Your task to perform on an android device: Empty the shopping cart on walmart.com. Add acer predator to the cart on walmart.com, then select checkout. Image 0: 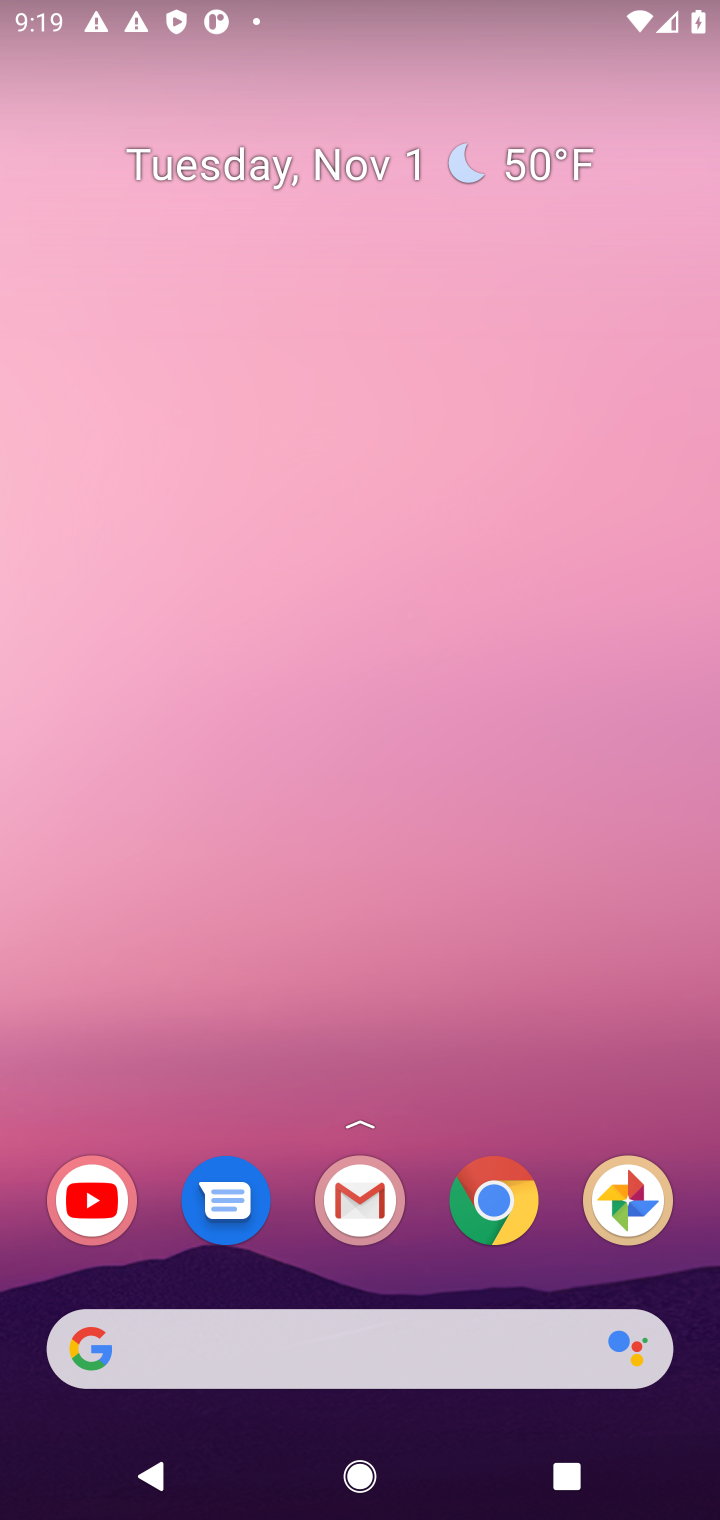
Step 0: click (285, 1363)
Your task to perform on an android device: Empty the shopping cart on walmart.com. Add acer predator to the cart on walmart.com, then select checkout. Image 1: 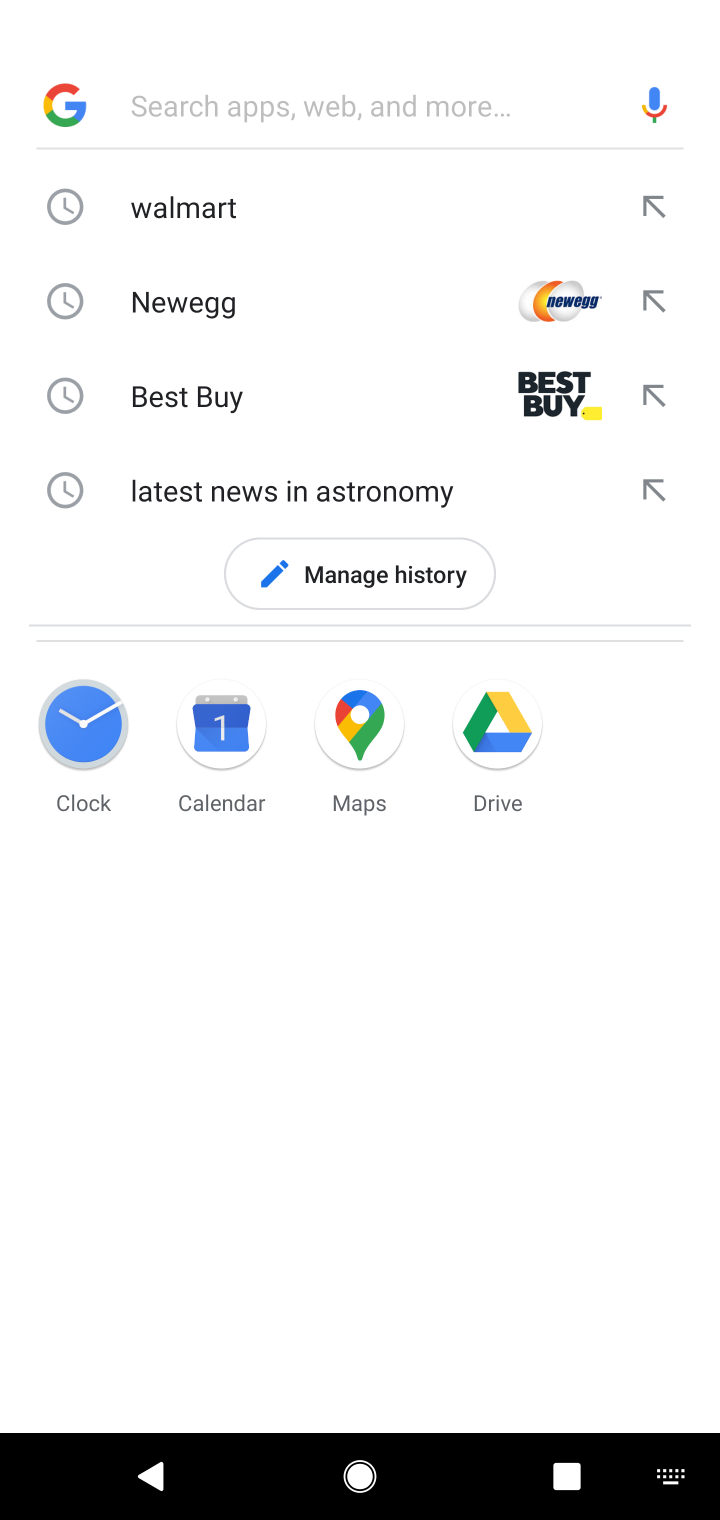
Step 1: type "walmart.com"
Your task to perform on an android device: Empty the shopping cart on walmart.com. Add acer predator to the cart on walmart.com, then select checkout. Image 2: 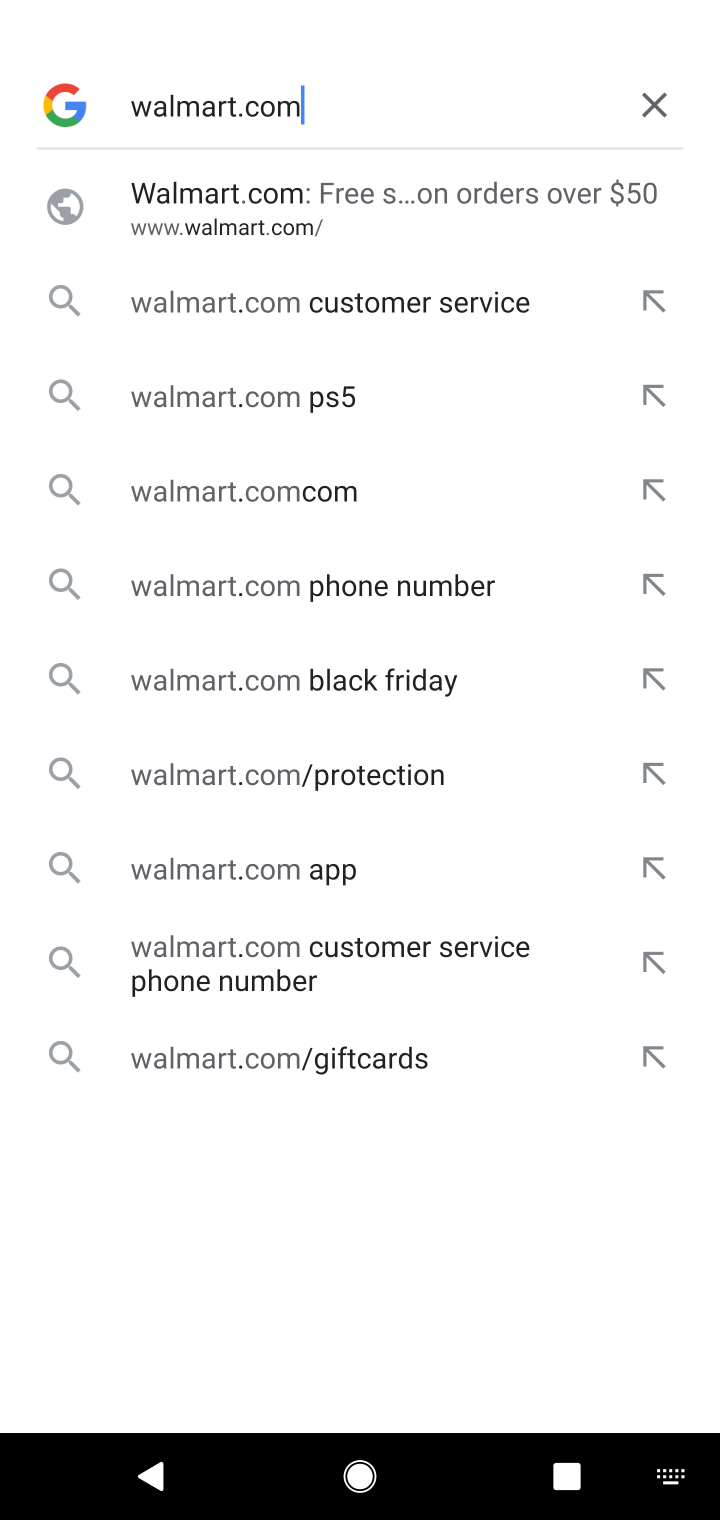
Step 2: type ""
Your task to perform on an android device: Empty the shopping cart on walmart.com. Add acer predator to the cart on walmart.com, then select checkout. Image 3: 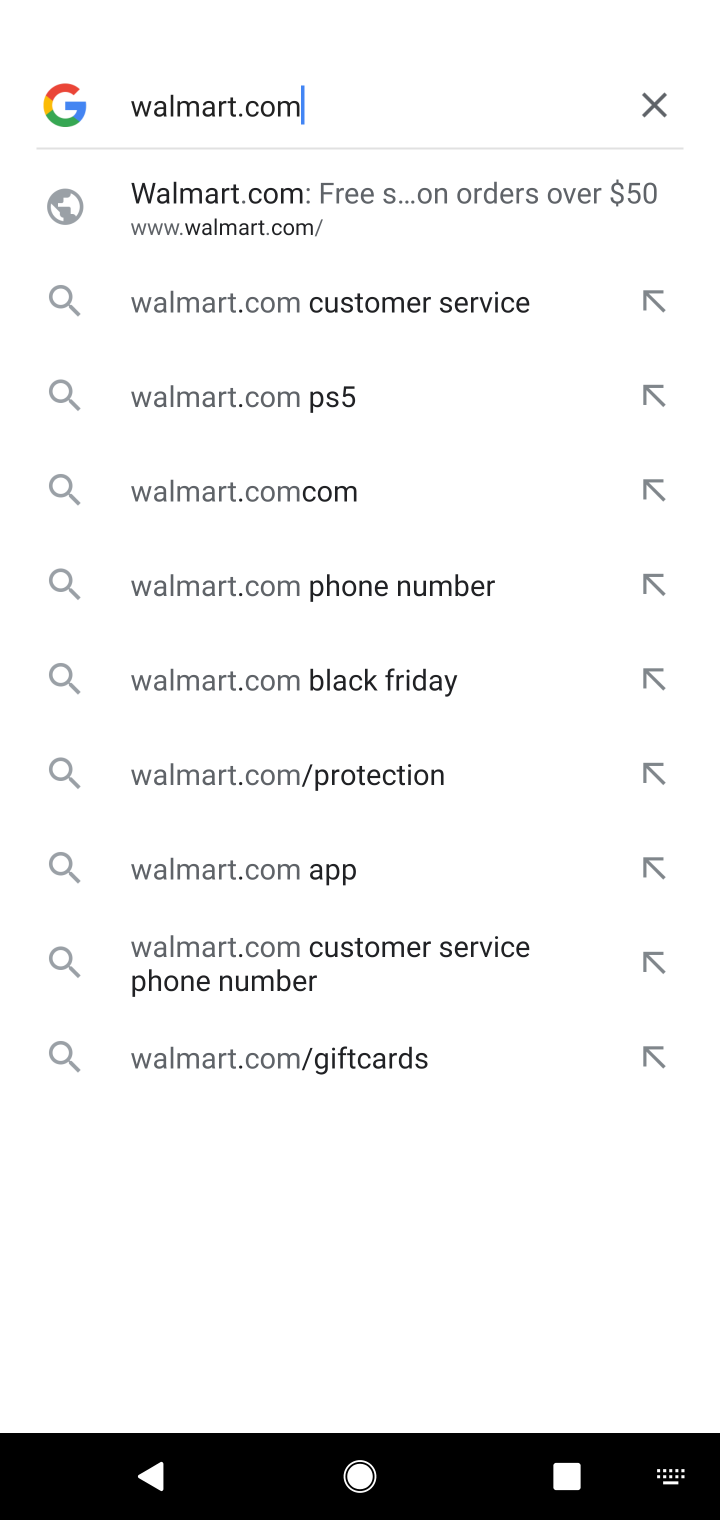
Step 3: click (152, 218)
Your task to perform on an android device: Empty the shopping cart on walmart.com. Add acer predator to the cart on walmart.com, then select checkout. Image 4: 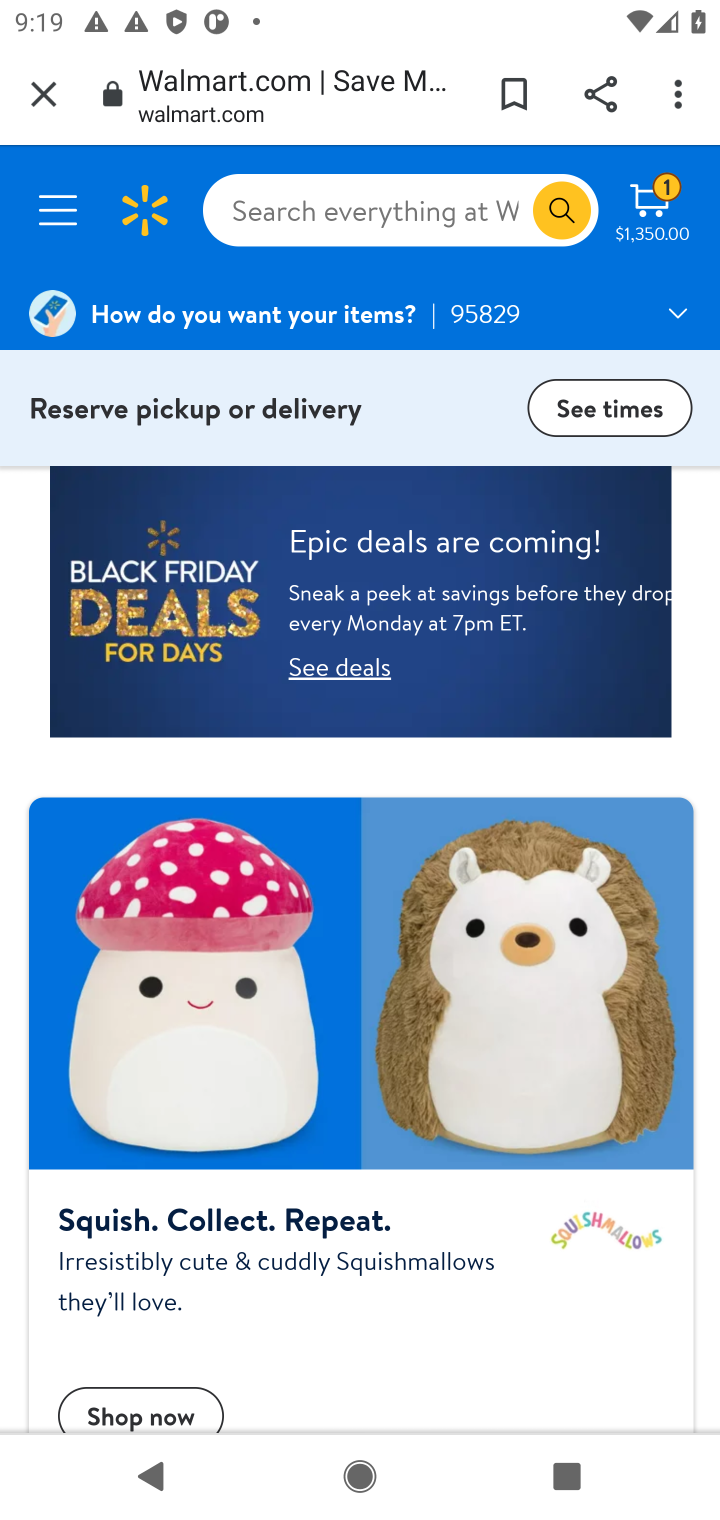
Step 4: click (274, 227)
Your task to perform on an android device: Empty the shopping cart on walmart.com. Add acer predator to the cart on walmart.com, then select checkout. Image 5: 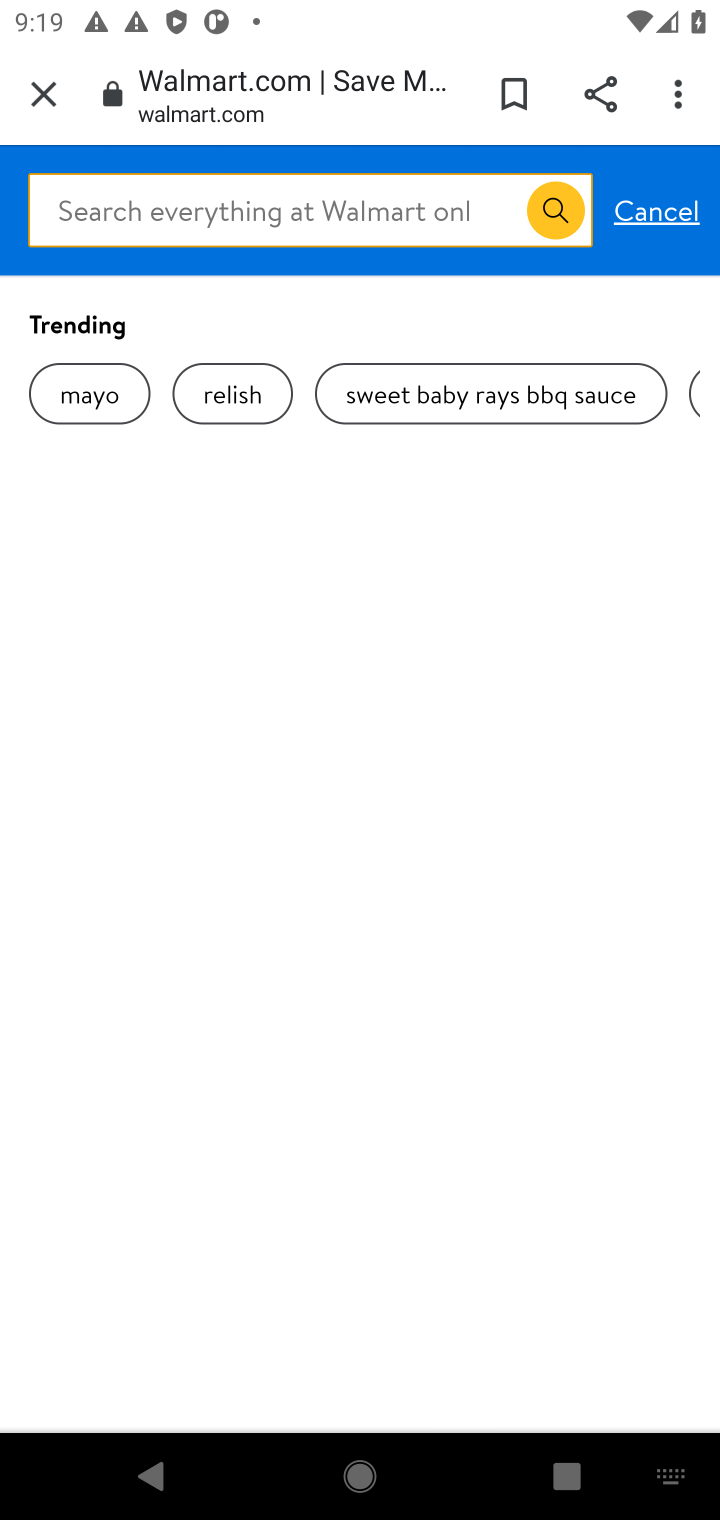
Step 5: type "acer predator"
Your task to perform on an android device: Empty the shopping cart on walmart.com. Add acer predator to the cart on walmart.com, then select checkout. Image 6: 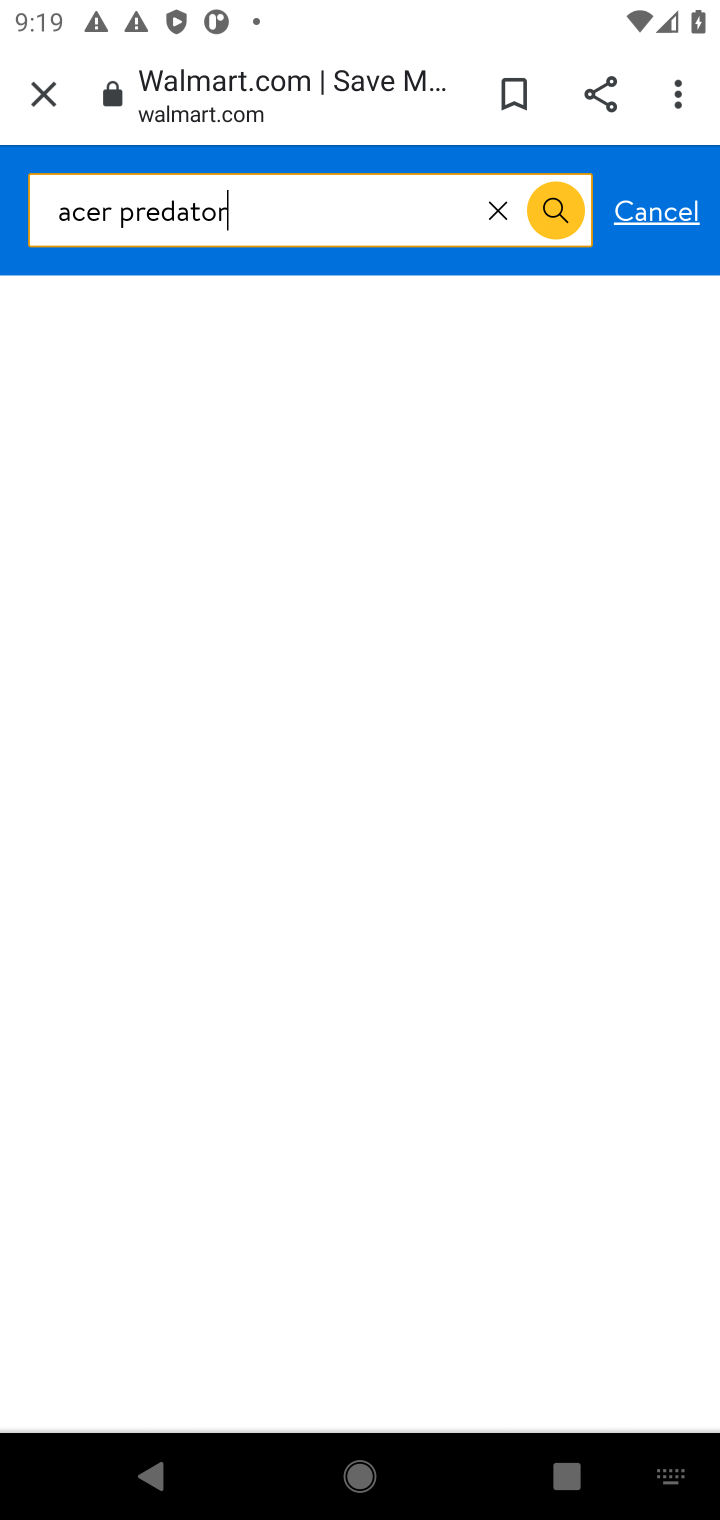
Step 6: type ""
Your task to perform on an android device: Empty the shopping cart on walmart.com. Add acer predator to the cart on walmart.com, then select checkout. Image 7: 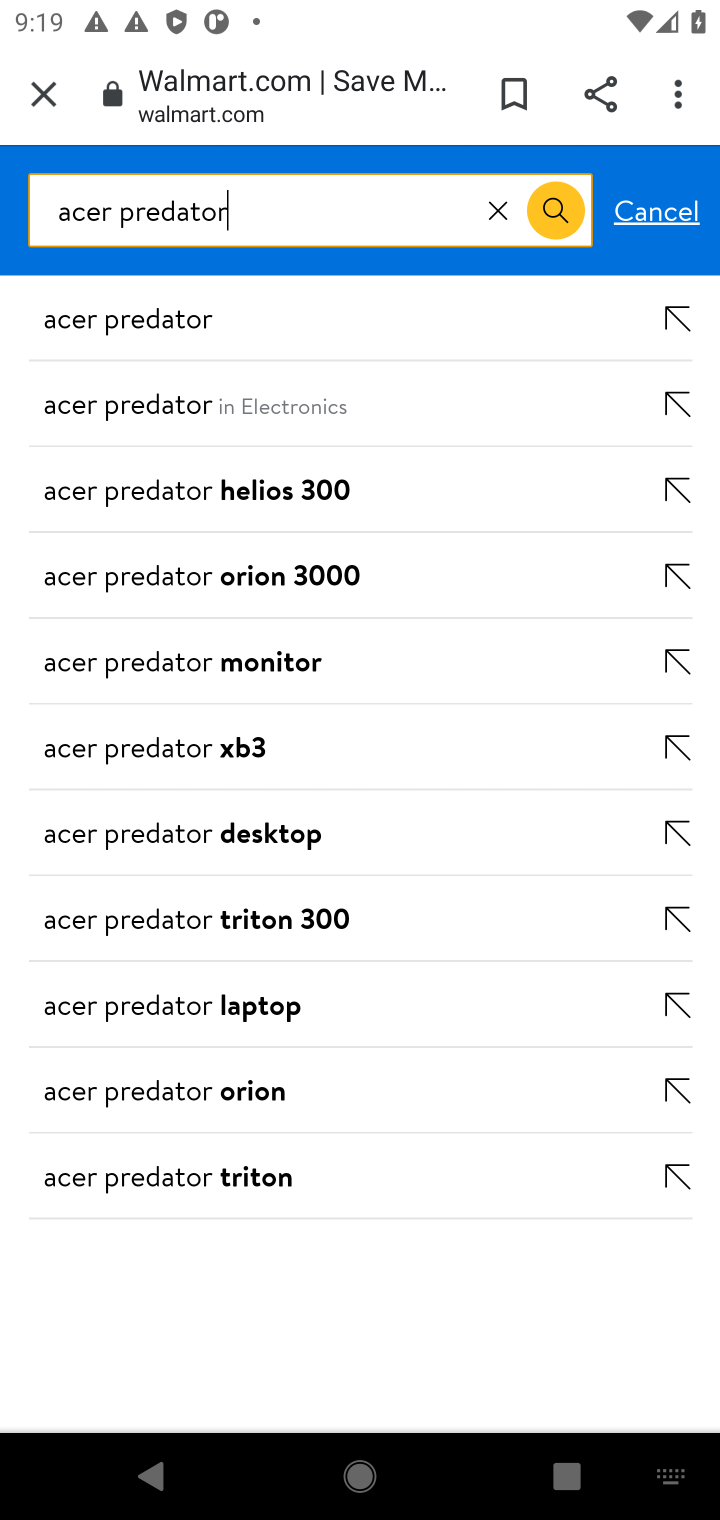
Step 7: click (119, 332)
Your task to perform on an android device: Empty the shopping cart on walmart.com. Add acer predator to the cart on walmart.com, then select checkout. Image 8: 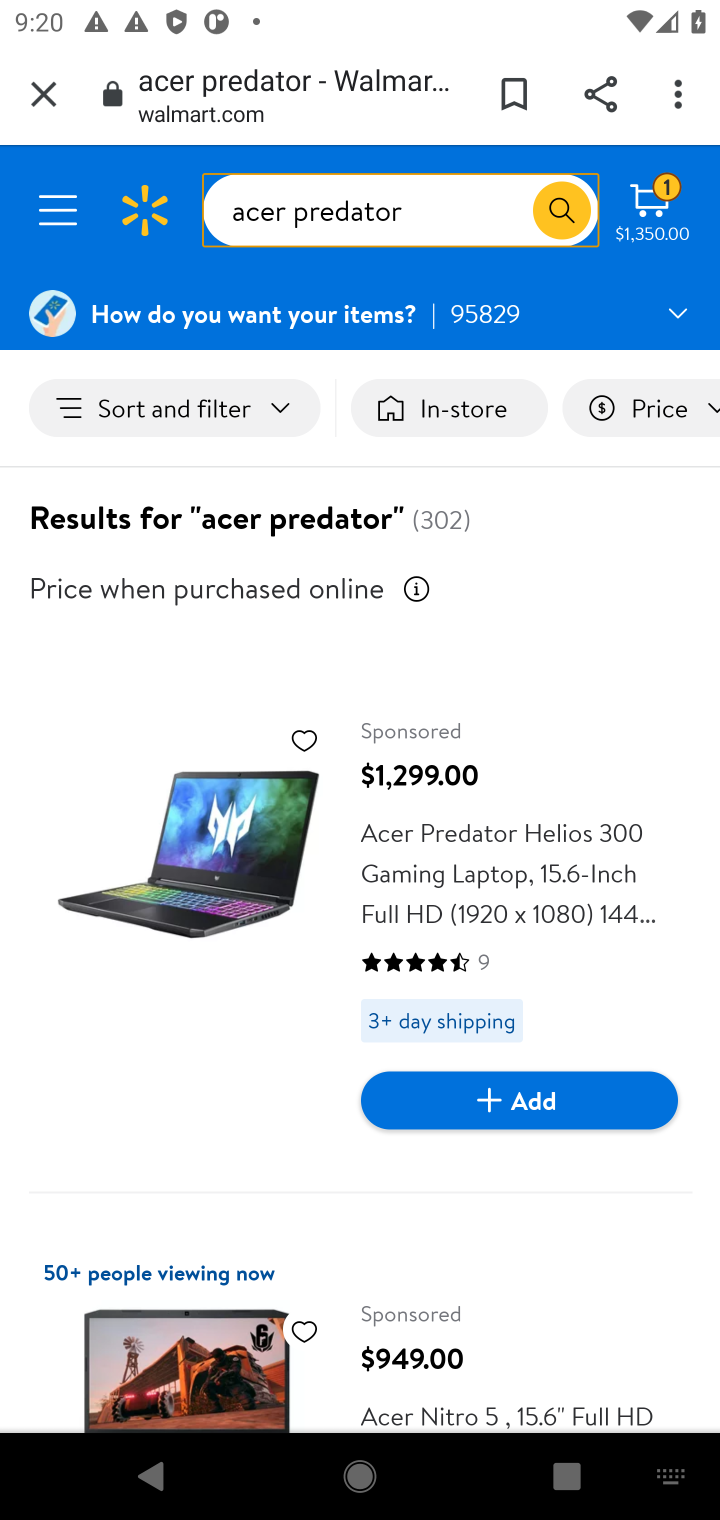
Step 8: click (518, 841)
Your task to perform on an android device: Empty the shopping cart on walmart.com. Add acer predator to the cart on walmart.com, then select checkout. Image 9: 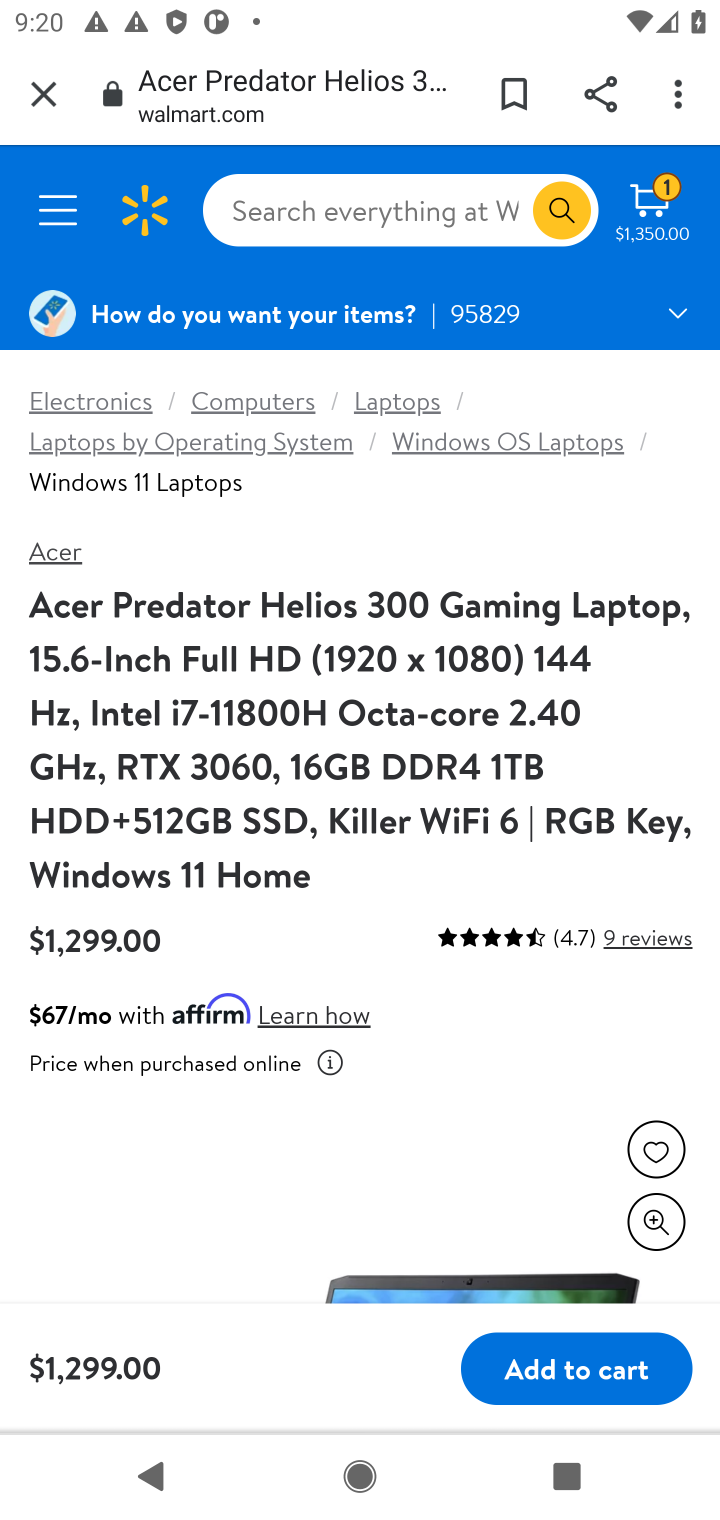
Step 9: click (509, 1370)
Your task to perform on an android device: Empty the shopping cart on walmart.com. Add acer predator to the cart on walmart.com, then select checkout. Image 10: 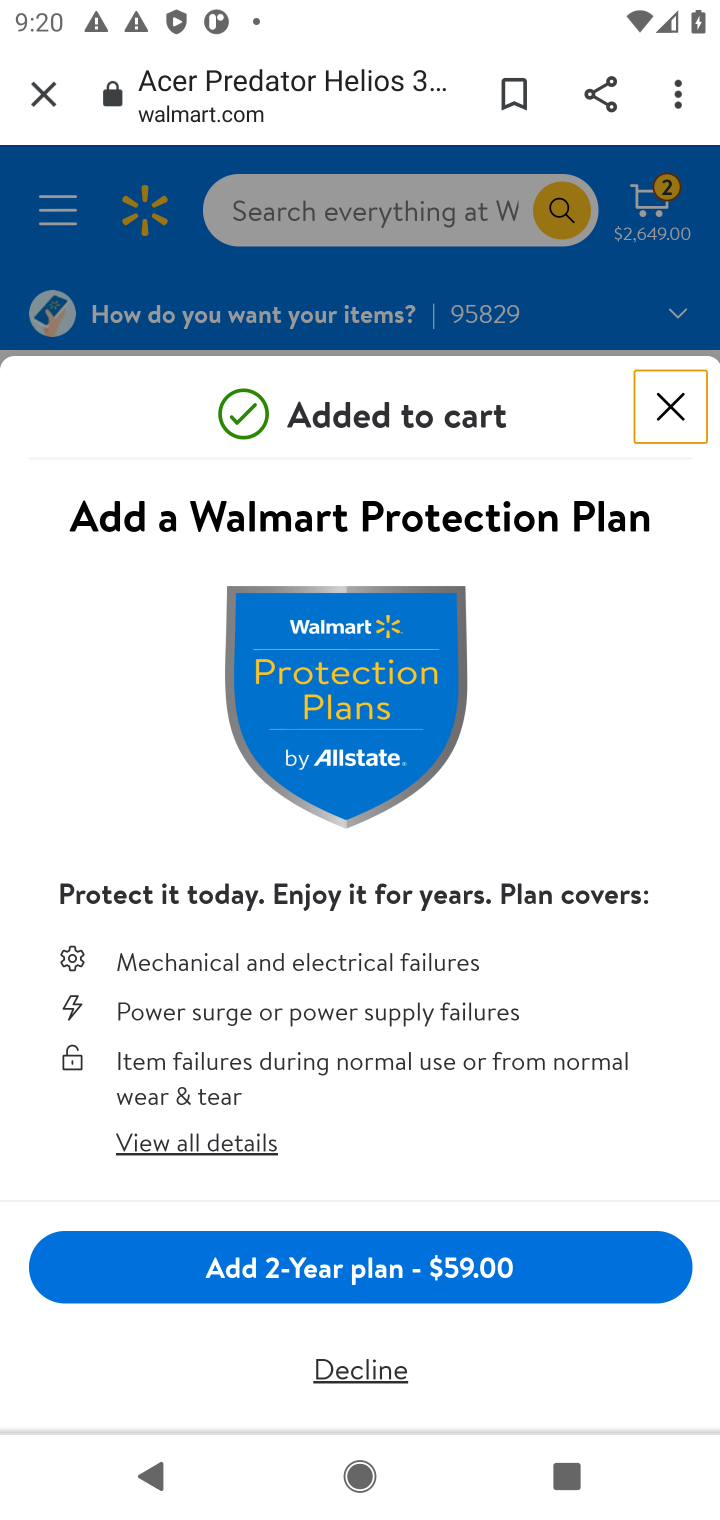
Step 10: click (371, 1384)
Your task to perform on an android device: Empty the shopping cart on walmart.com. Add acer predator to the cart on walmart.com, then select checkout. Image 11: 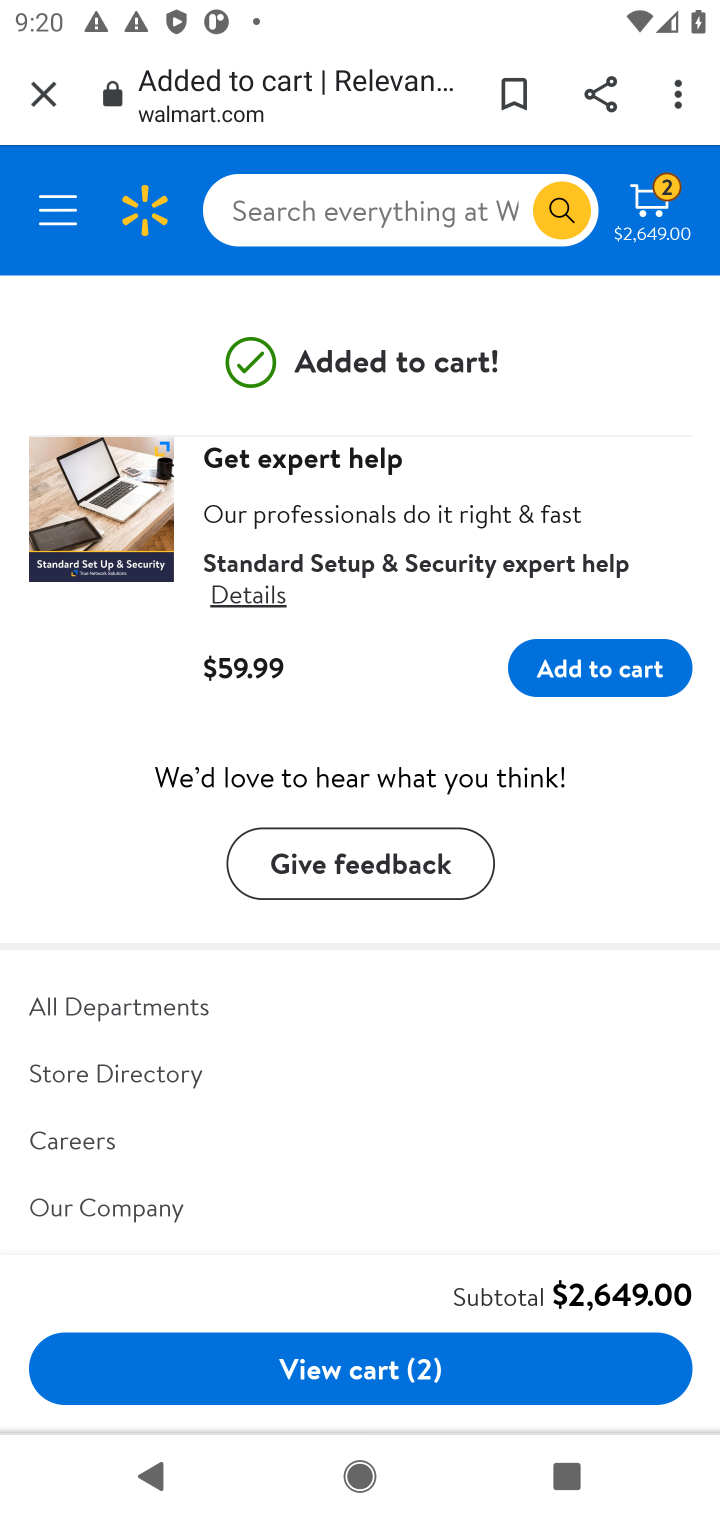
Step 11: click (350, 1386)
Your task to perform on an android device: Empty the shopping cart on walmart.com. Add acer predator to the cart on walmart.com, then select checkout. Image 12: 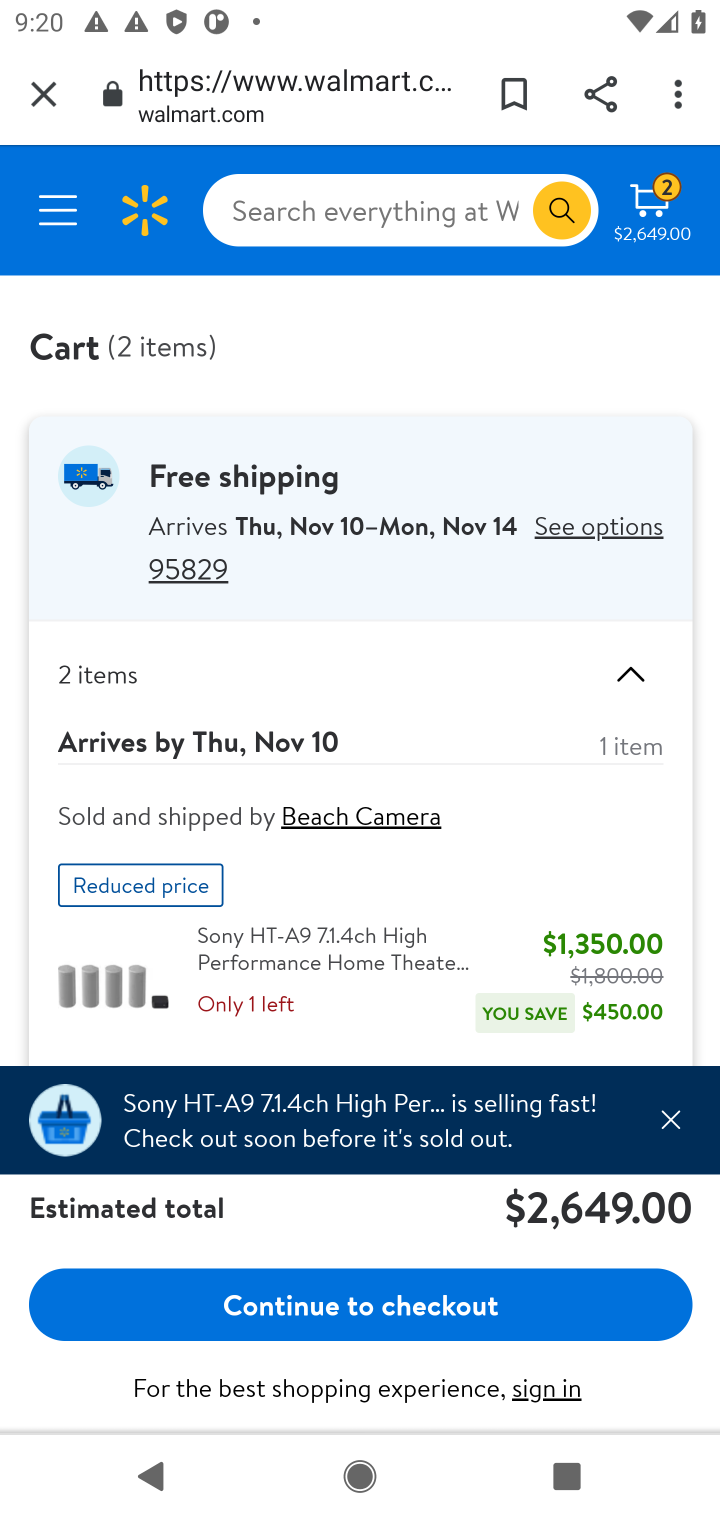
Step 12: click (344, 1311)
Your task to perform on an android device: Empty the shopping cart on walmart.com. Add acer predator to the cart on walmart.com, then select checkout. Image 13: 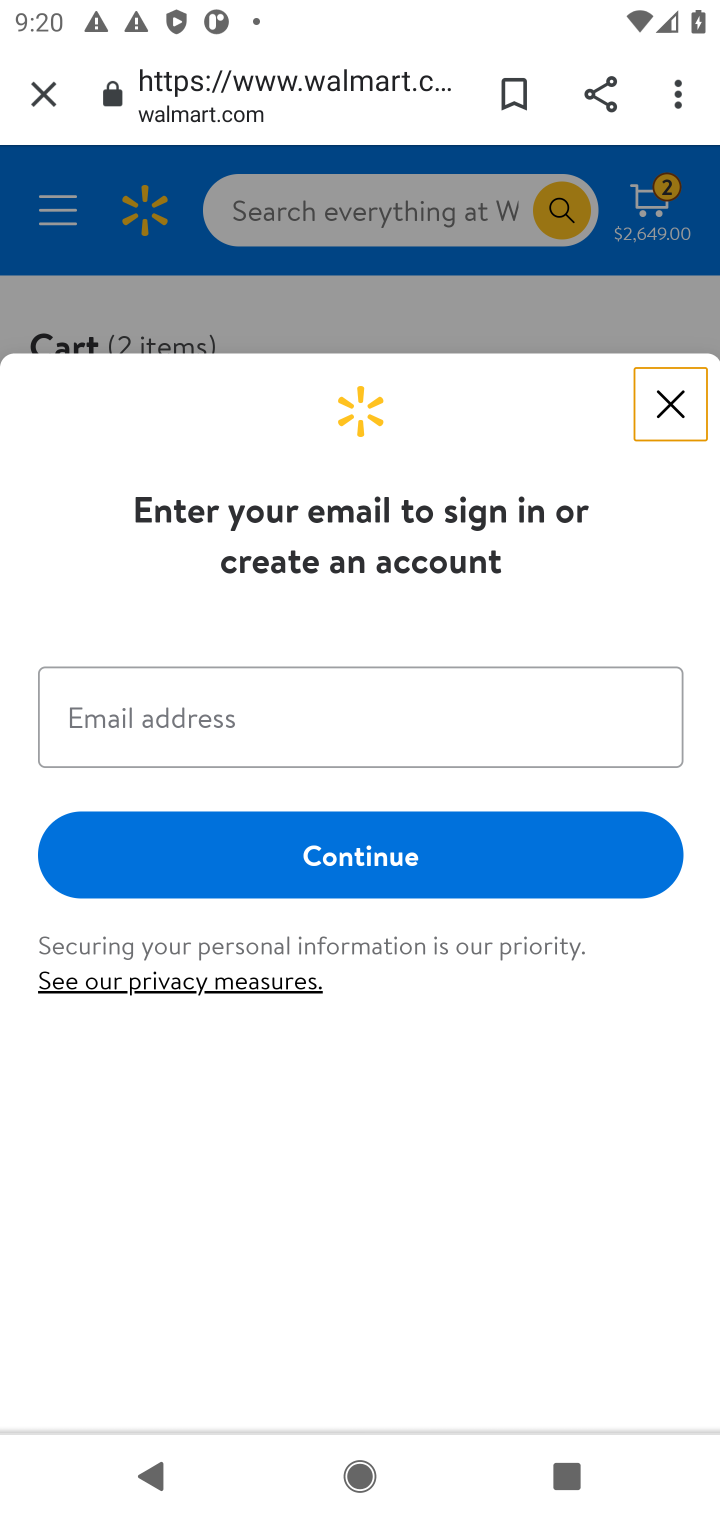
Step 13: task complete